Your task to perform on an android device: delete a single message in the gmail app Image 0: 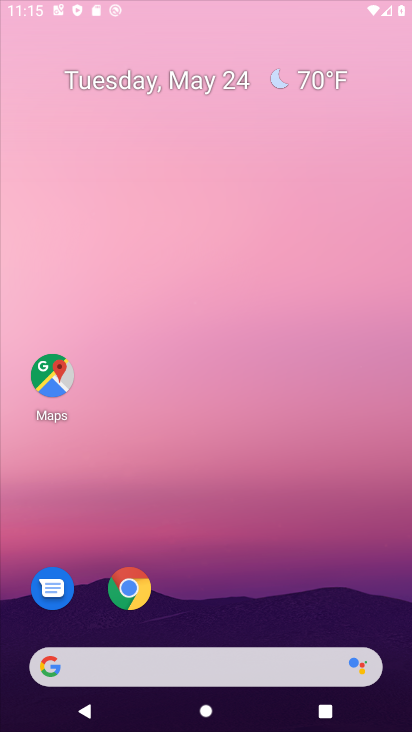
Step 0: press home button
Your task to perform on an android device: delete a single message in the gmail app Image 1: 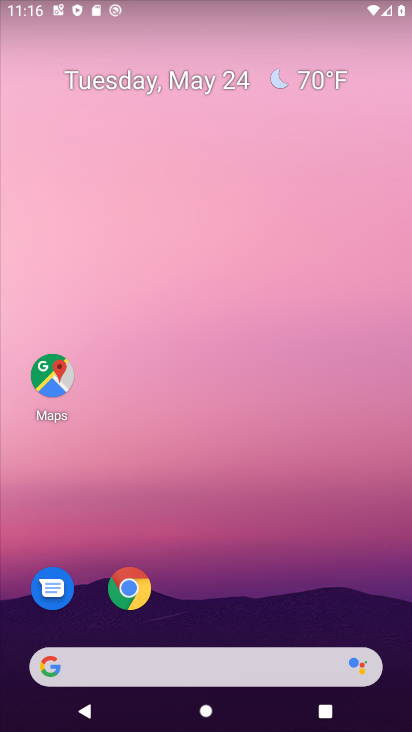
Step 1: drag from (211, 628) to (266, 2)
Your task to perform on an android device: delete a single message in the gmail app Image 2: 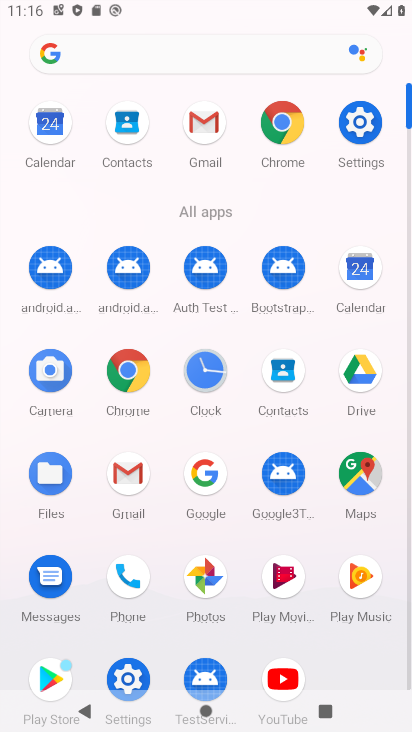
Step 2: click (203, 117)
Your task to perform on an android device: delete a single message in the gmail app Image 3: 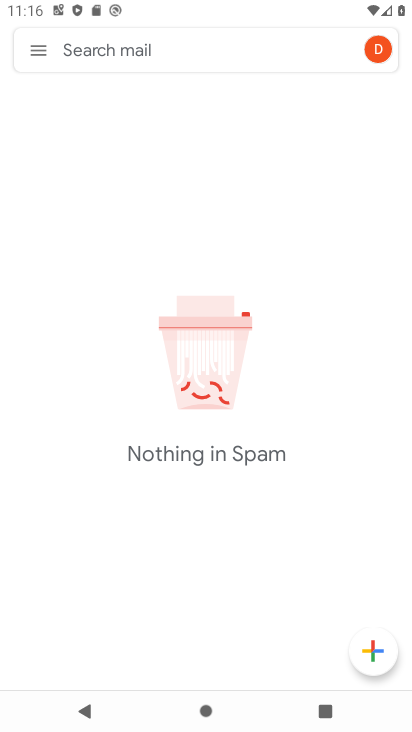
Step 3: click (34, 50)
Your task to perform on an android device: delete a single message in the gmail app Image 4: 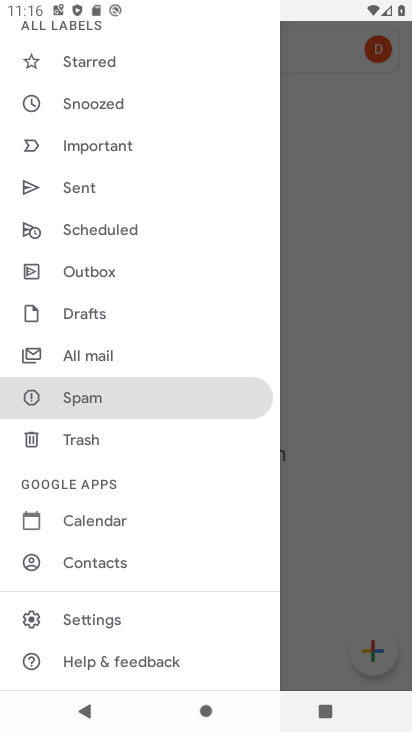
Step 4: click (116, 347)
Your task to perform on an android device: delete a single message in the gmail app Image 5: 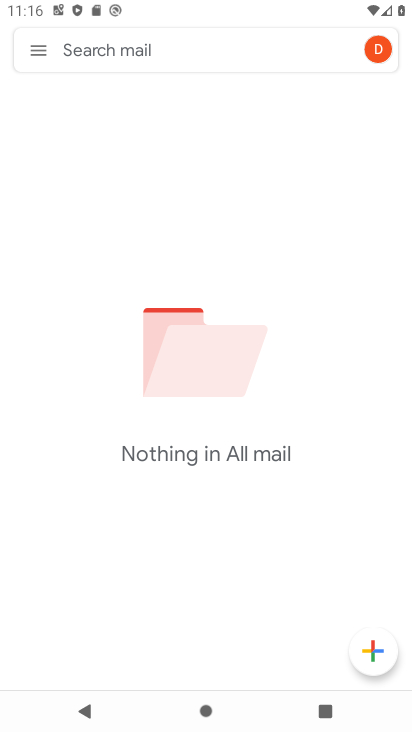
Step 5: task complete